Your task to perform on an android device: When is my next meeting? Image 0: 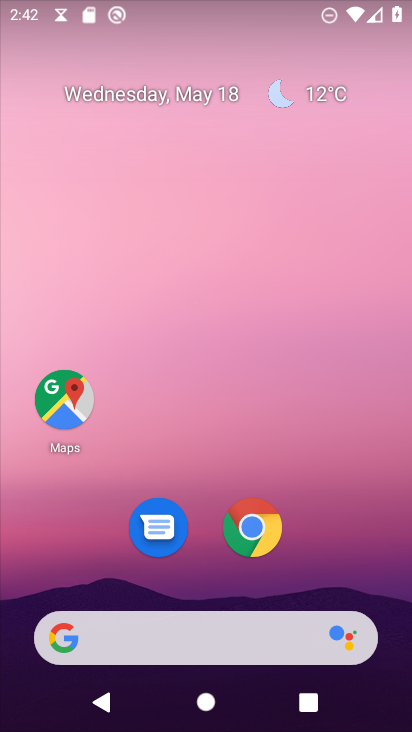
Step 0: click (187, 90)
Your task to perform on an android device: When is my next meeting? Image 1: 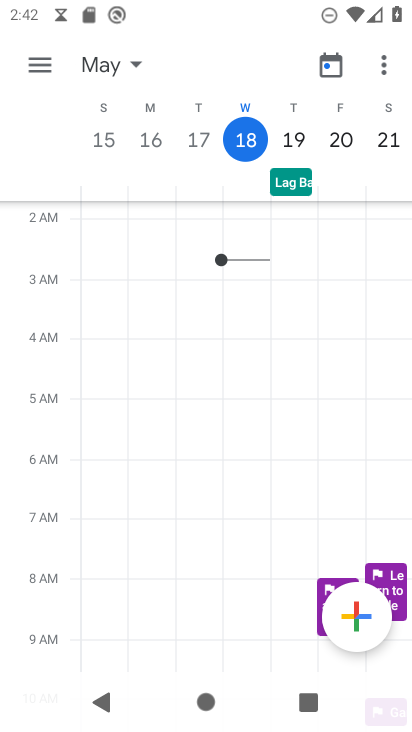
Step 1: task complete